Your task to perform on an android device: move an email to a new category in the gmail app Image 0: 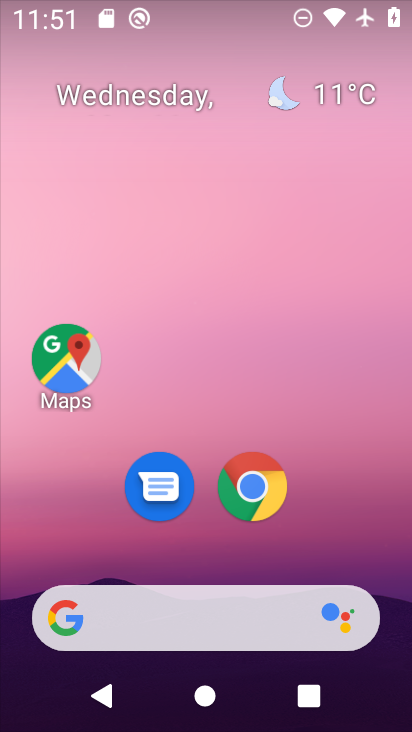
Step 0: drag from (323, 397) to (304, 46)
Your task to perform on an android device: move an email to a new category in the gmail app Image 1: 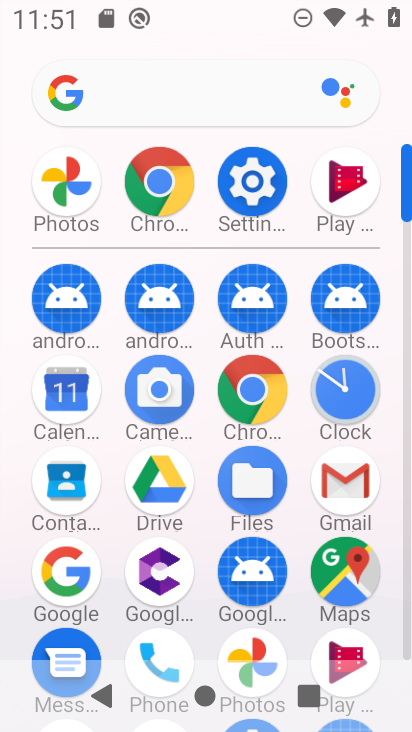
Step 1: drag from (15, 524) to (16, 247)
Your task to perform on an android device: move an email to a new category in the gmail app Image 2: 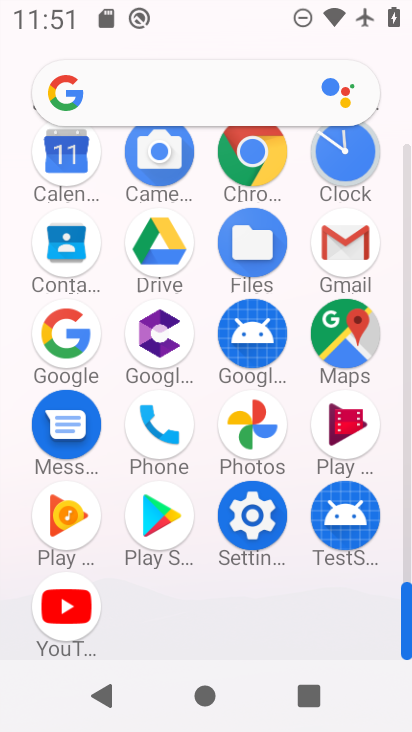
Step 2: click (345, 244)
Your task to perform on an android device: move an email to a new category in the gmail app Image 3: 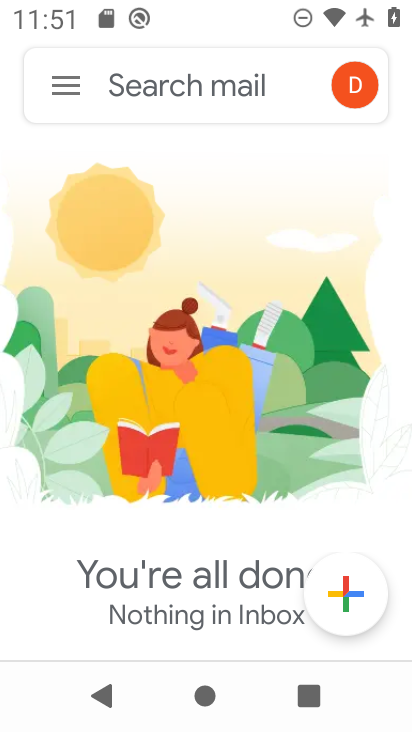
Step 3: click (57, 77)
Your task to perform on an android device: move an email to a new category in the gmail app Image 4: 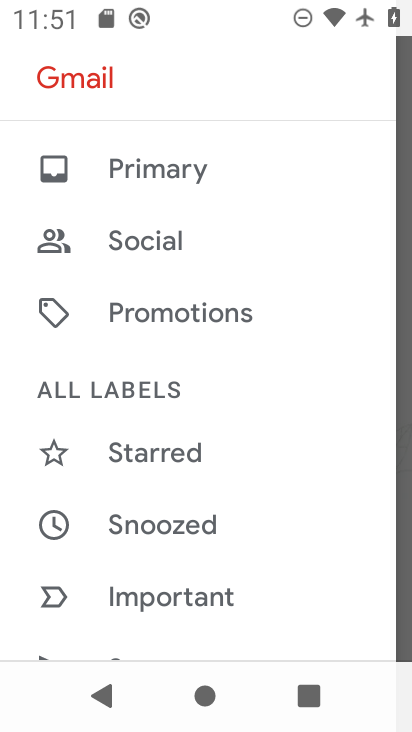
Step 4: click (187, 165)
Your task to perform on an android device: move an email to a new category in the gmail app Image 5: 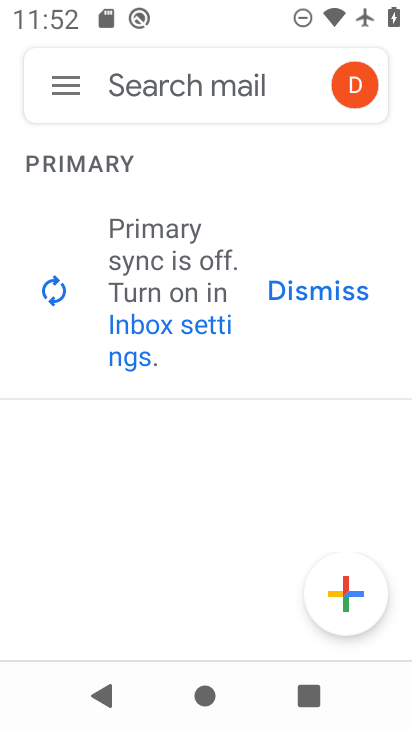
Step 5: click (54, 86)
Your task to perform on an android device: move an email to a new category in the gmail app Image 6: 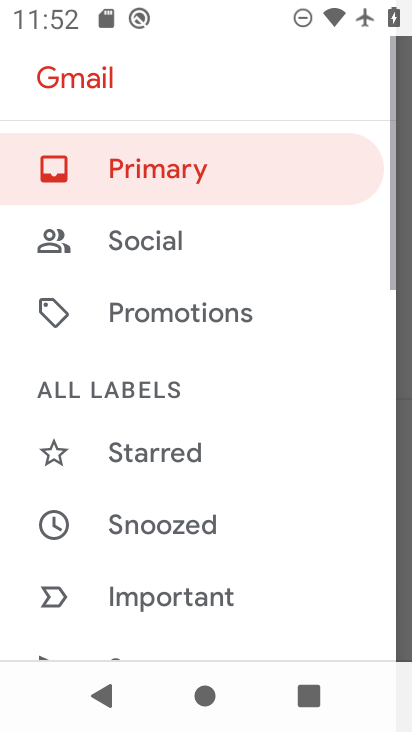
Step 6: drag from (228, 576) to (215, 154)
Your task to perform on an android device: move an email to a new category in the gmail app Image 7: 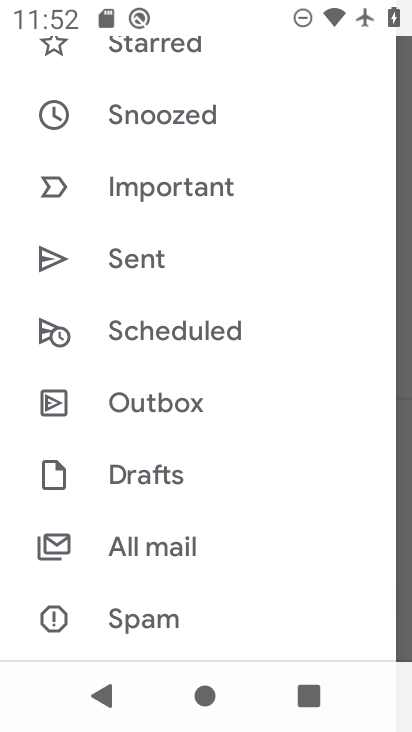
Step 7: drag from (225, 580) to (221, 209)
Your task to perform on an android device: move an email to a new category in the gmail app Image 8: 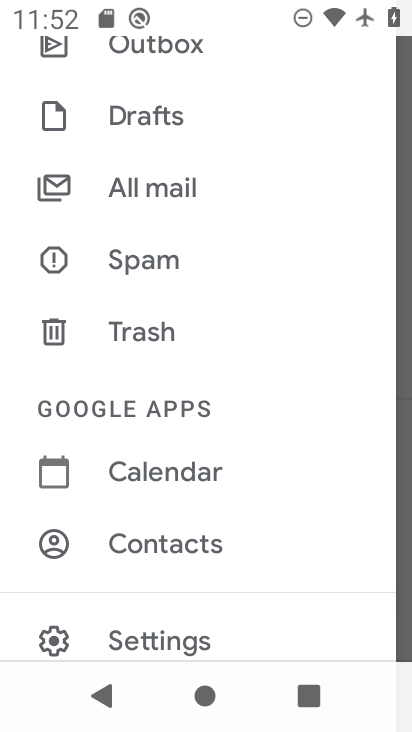
Step 8: click (203, 183)
Your task to perform on an android device: move an email to a new category in the gmail app Image 9: 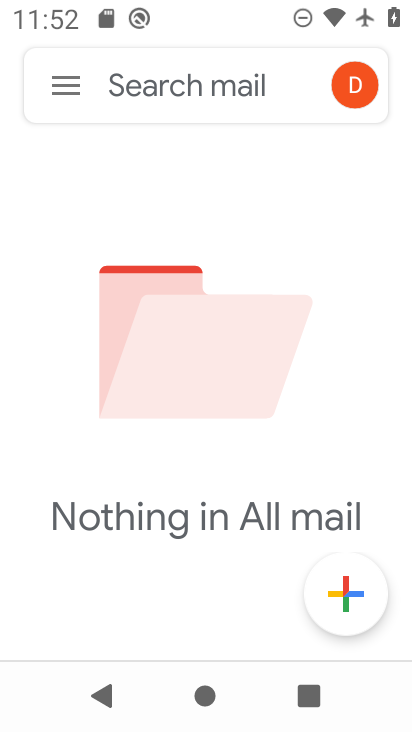
Step 9: task complete